Your task to perform on an android device: Open Google Maps and go to "Timeline" Image 0: 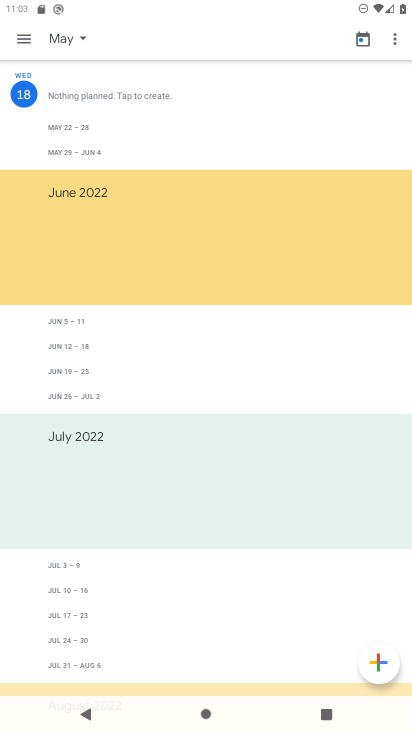
Step 0: press back button
Your task to perform on an android device: Open Google Maps and go to "Timeline" Image 1: 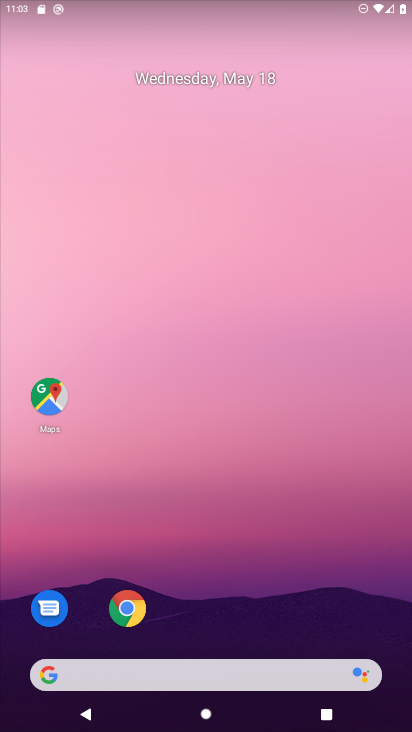
Step 1: click (46, 397)
Your task to perform on an android device: Open Google Maps and go to "Timeline" Image 2: 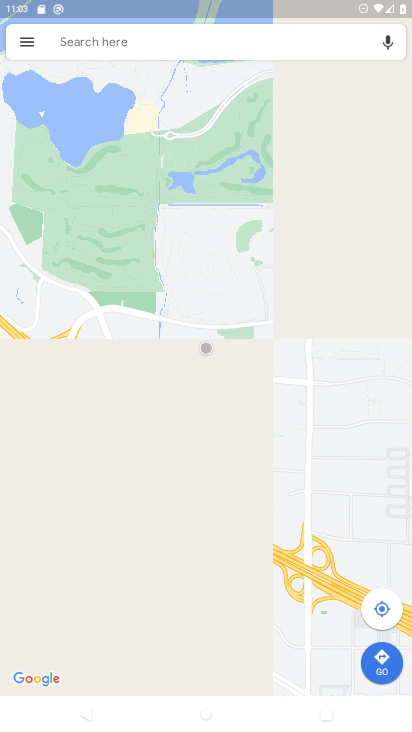
Step 2: click (29, 41)
Your task to perform on an android device: Open Google Maps and go to "Timeline" Image 3: 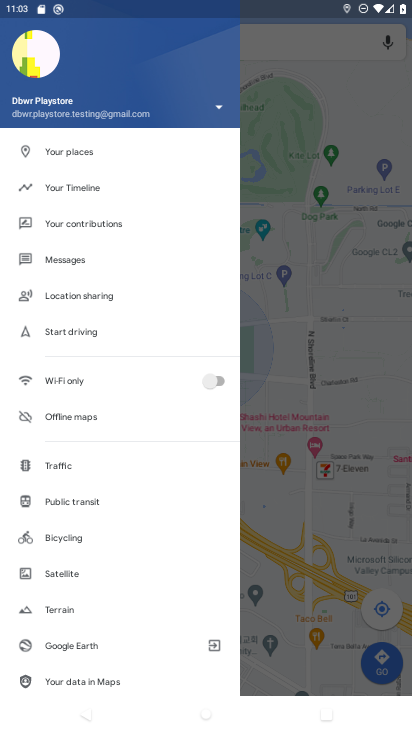
Step 3: click (59, 184)
Your task to perform on an android device: Open Google Maps and go to "Timeline" Image 4: 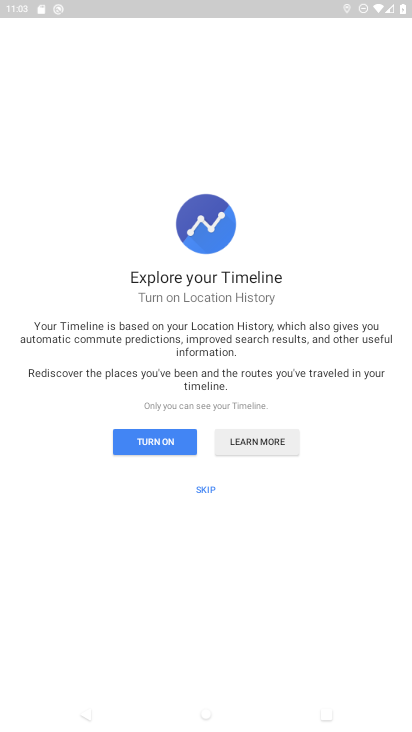
Step 4: click (209, 485)
Your task to perform on an android device: Open Google Maps and go to "Timeline" Image 5: 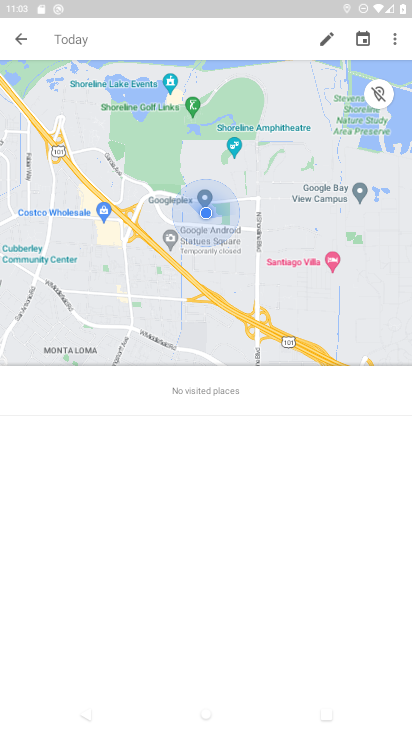
Step 5: task complete